Your task to perform on an android device: turn off improve location accuracy Image 0: 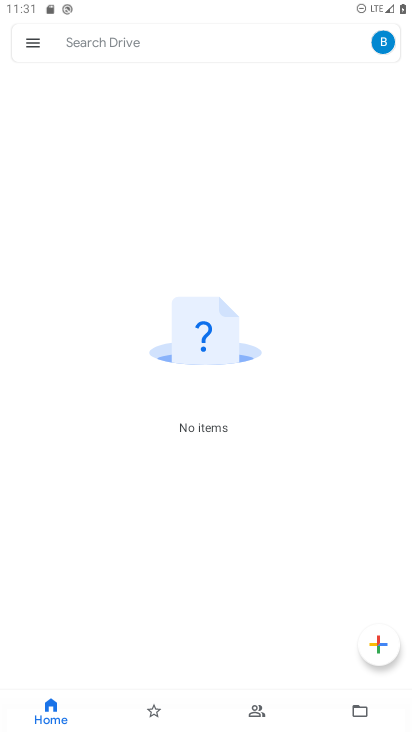
Step 0: press home button
Your task to perform on an android device: turn off improve location accuracy Image 1: 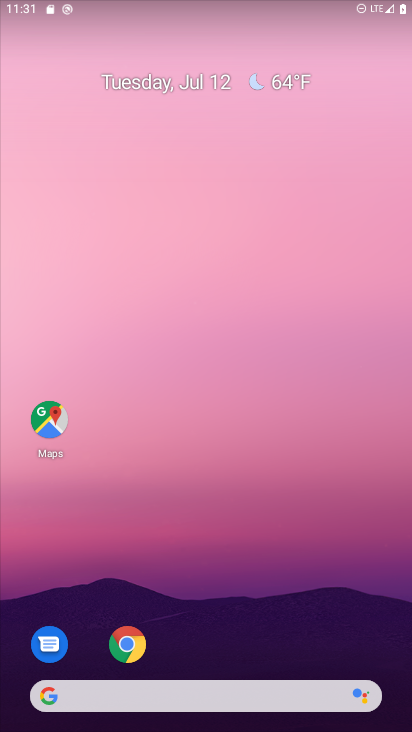
Step 1: drag from (321, 618) to (312, 242)
Your task to perform on an android device: turn off improve location accuracy Image 2: 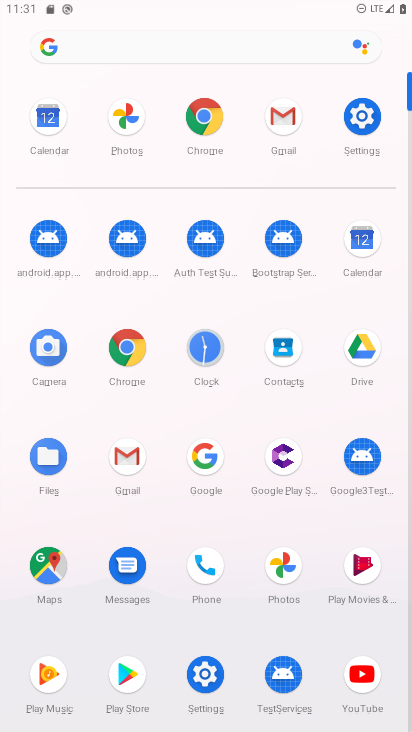
Step 2: click (367, 121)
Your task to perform on an android device: turn off improve location accuracy Image 3: 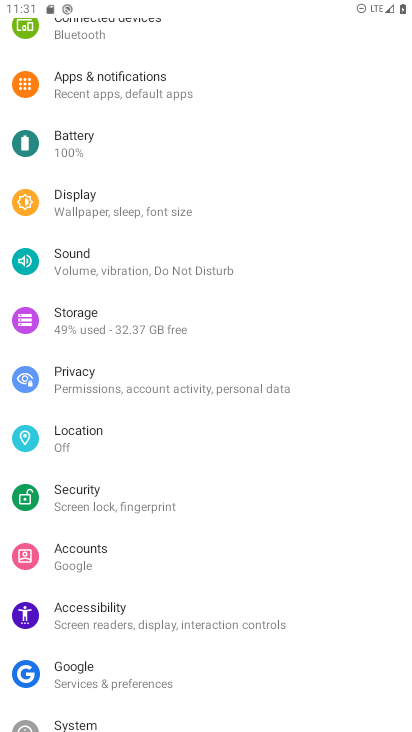
Step 3: click (141, 440)
Your task to perform on an android device: turn off improve location accuracy Image 4: 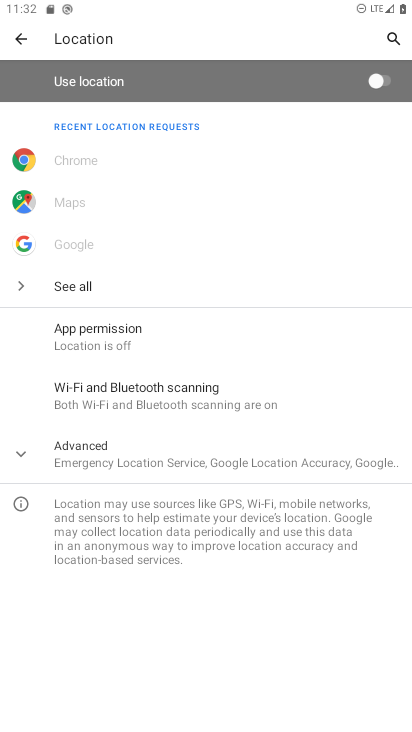
Step 4: click (141, 440)
Your task to perform on an android device: turn off improve location accuracy Image 5: 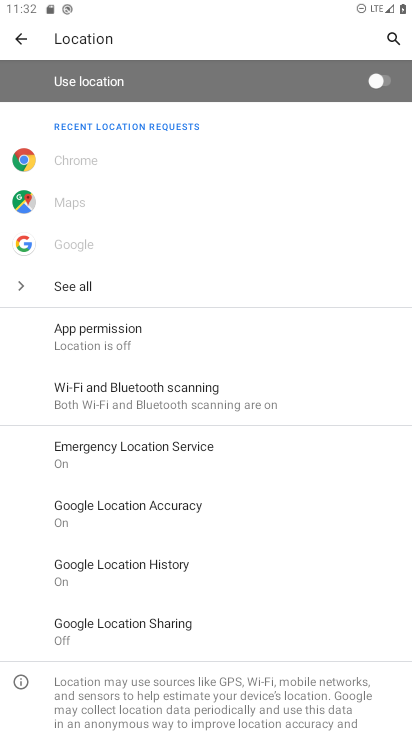
Step 5: click (193, 499)
Your task to perform on an android device: turn off improve location accuracy Image 6: 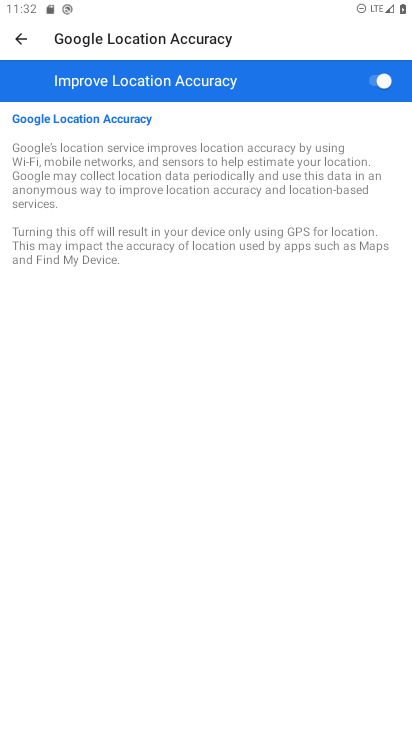
Step 6: click (381, 87)
Your task to perform on an android device: turn off improve location accuracy Image 7: 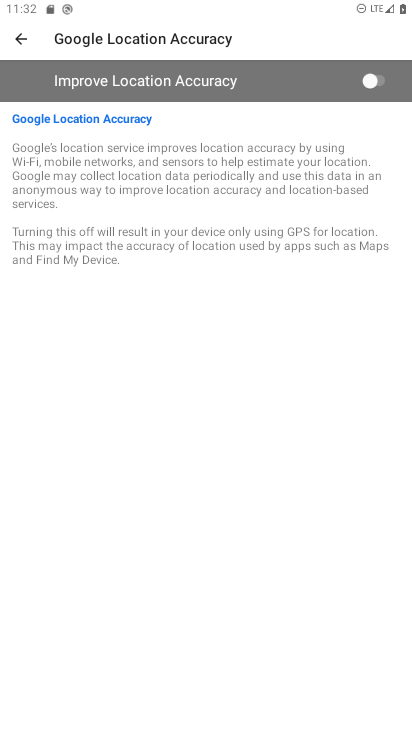
Step 7: task complete